Your task to perform on an android device: Show me popular games on the Play Store Image 0: 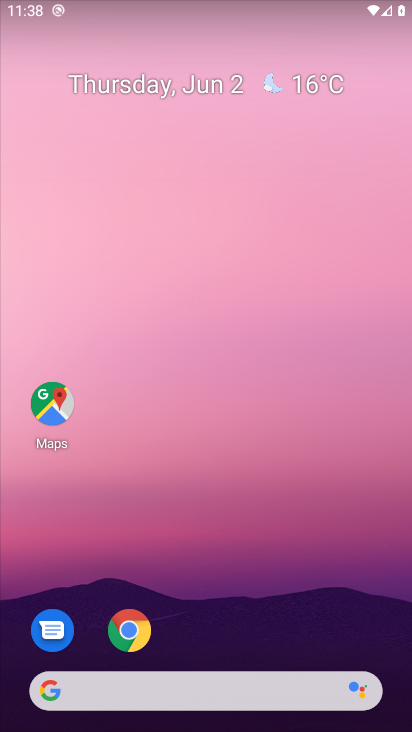
Step 0: drag from (195, 640) to (250, 5)
Your task to perform on an android device: Show me popular games on the Play Store Image 1: 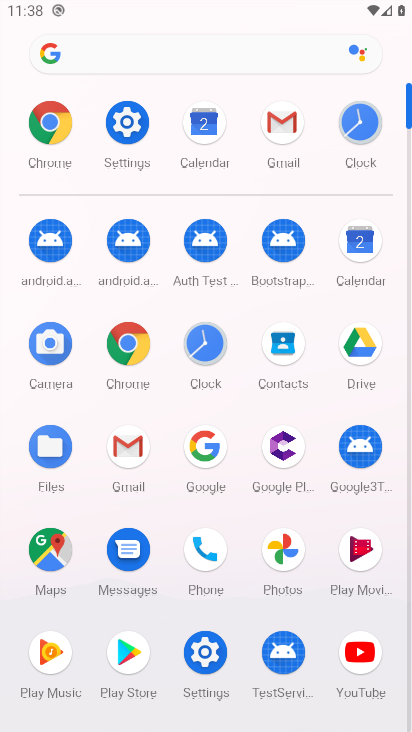
Step 1: click (145, 653)
Your task to perform on an android device: Show me popular games on the Play Store Image 2: 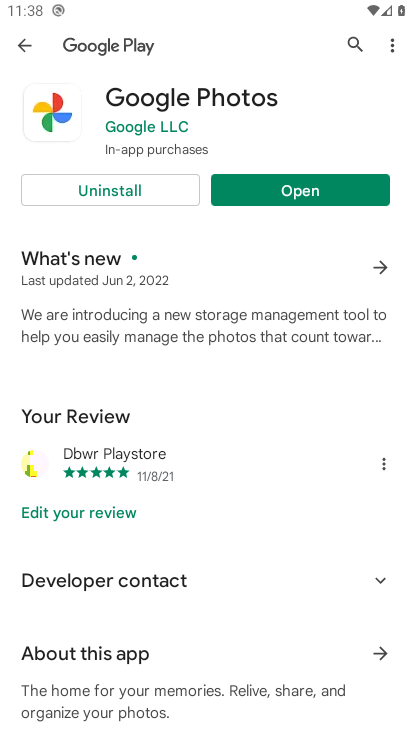
Step 2: click (29, 47)
Your task to perform on an android device: Show me popular games on the Play Store Image 3: 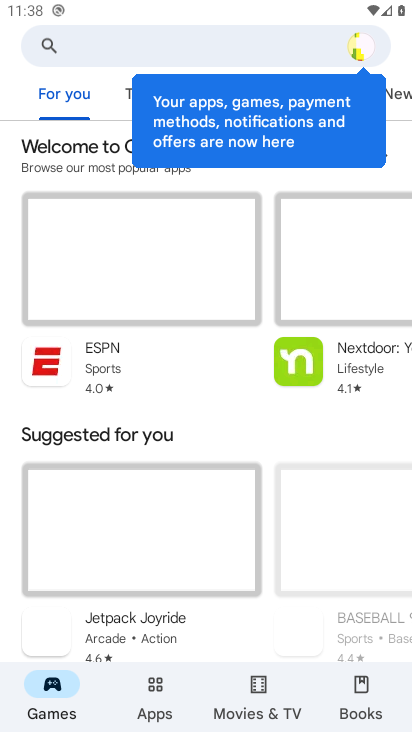
Step 3: drag from (111, 99) to (49, 98)
Your task to perform on an android device: Show me popular games on the Play Store Image 4: 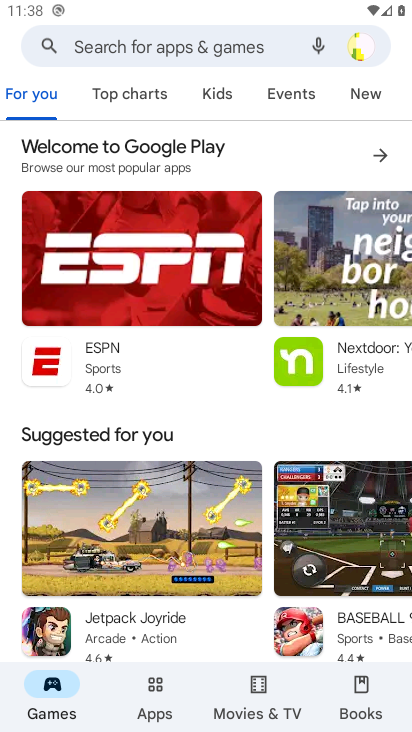
Step 4: click (149, 97)
Your task to perform on an android device: Show me popular games on the Play Store Image 5: 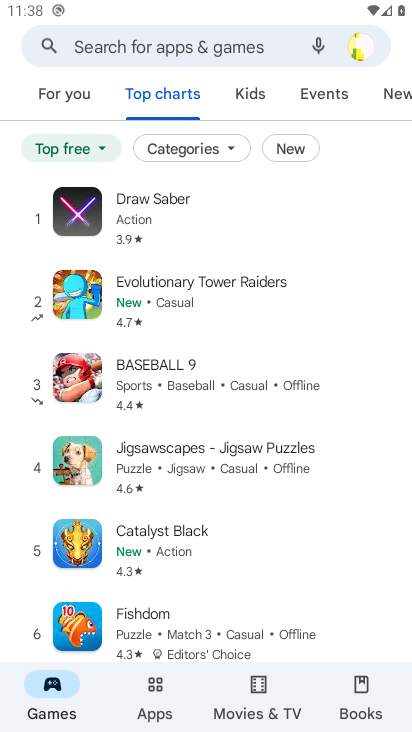
Step 5: task complete